Your task to perform on an android device: Go to network settings Image 0: 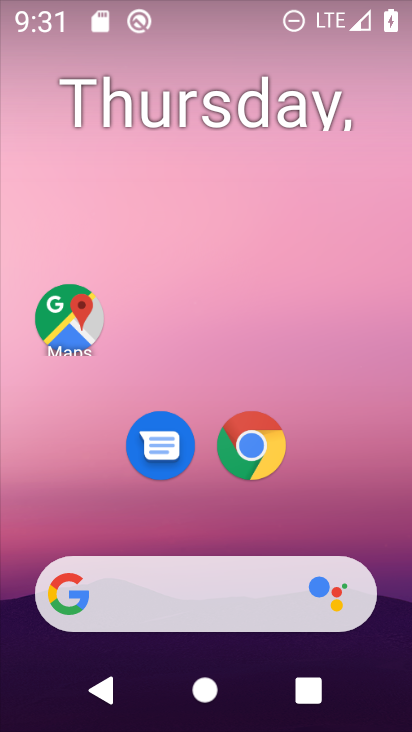
Step 0: drag from (390, 509) to (329, 75)
Your task to perform on an android device: Go to network settings Image 1: 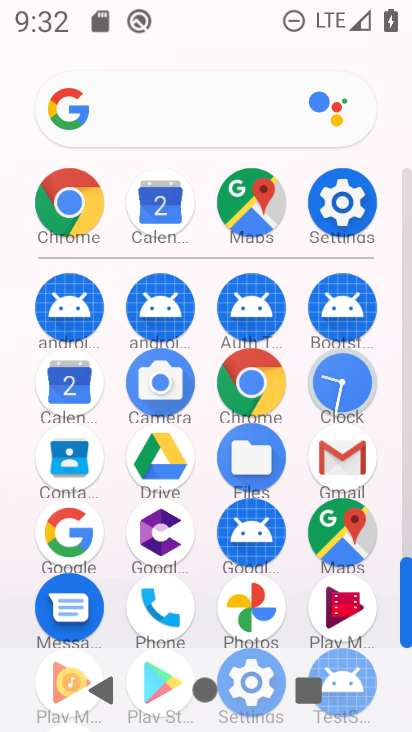
Step 1: click (321, 193)
Your task to perform on an android device: Go to network settings Image 2: 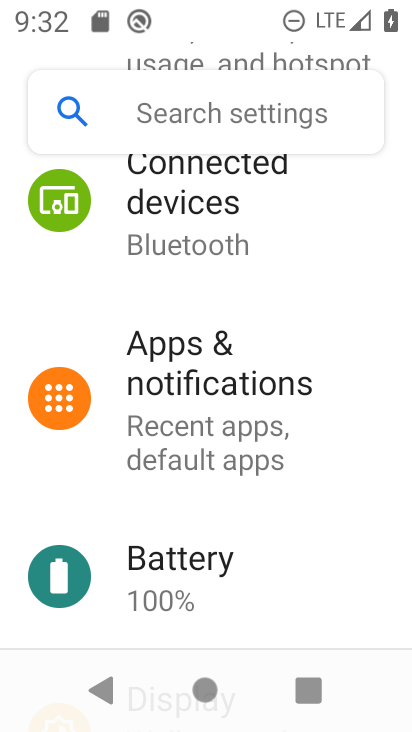
Step 2: drag from (184, 242) to (298, 680)
Your task to perform on an android device: Go to network settings Image 3: 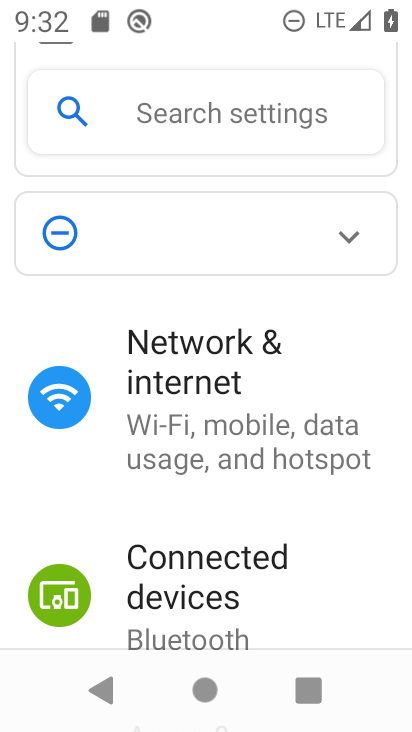
Step 3: click (206, 383)
Your task to perform on an android device: Go to network settings Image 4: 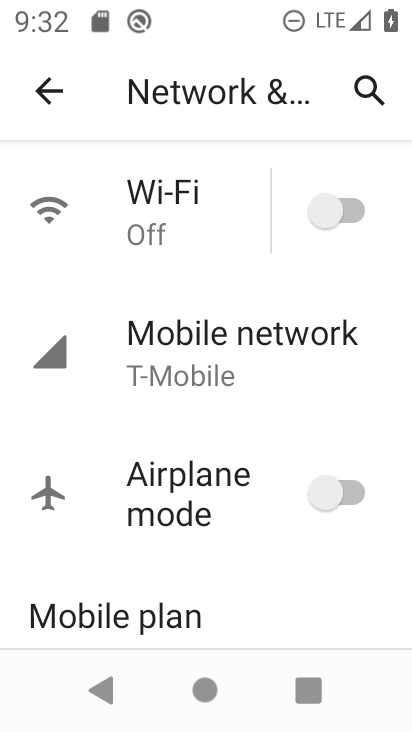
Step 4: task complete